Your task to perform on an android device: toggle improve location accuracy Image 0: 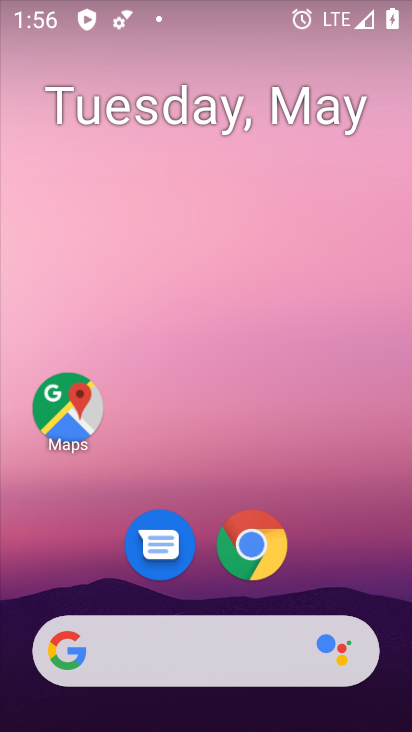
Step 0: drag from (313, 507) to (188, 1)
Your task to perform on an android device: toggle improve location accuracy Image 1: 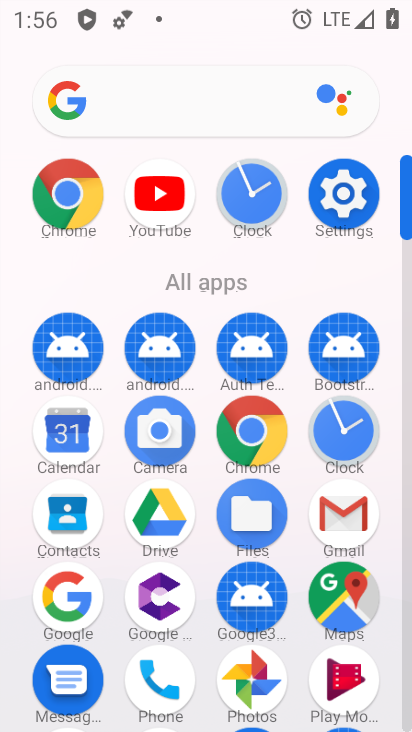
Step 1: drag from (8, 591) to (11, 308)
Your task to perform on an android device: toggle improve location accuracy Image 2: 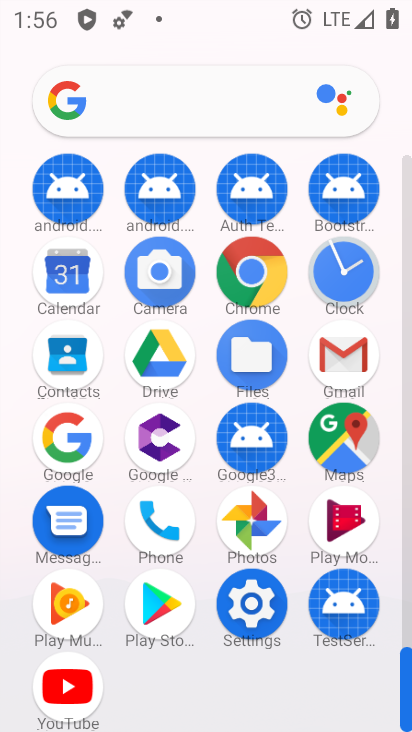
Step 2: click (252, 600)
Your task to perform on an android device: toggle improve location accuracy Image 3: 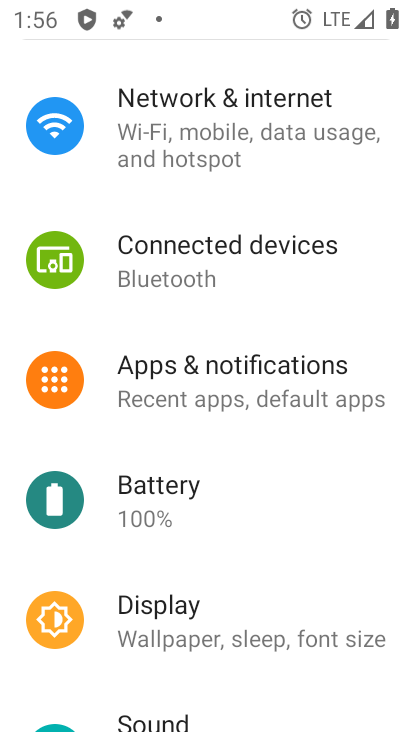
Step 3: drag from (237, 652) to (259, 193)
Your task to perform on an android device: toggle improve location accuracy Image 4: 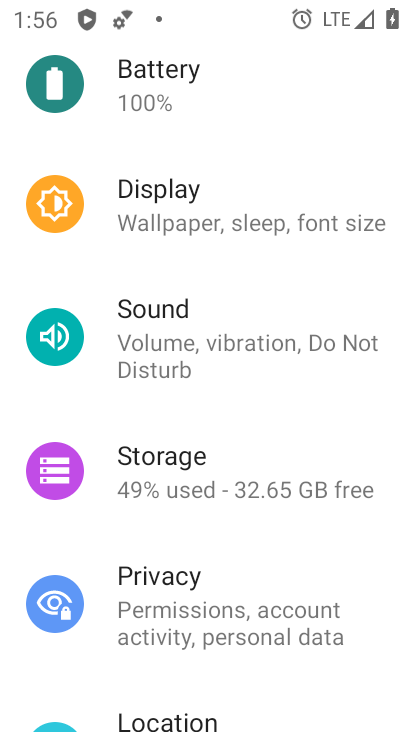
Step 4: click (184, 714)
Your task to perform on an android device: toggle improve location accuracy Image 5: 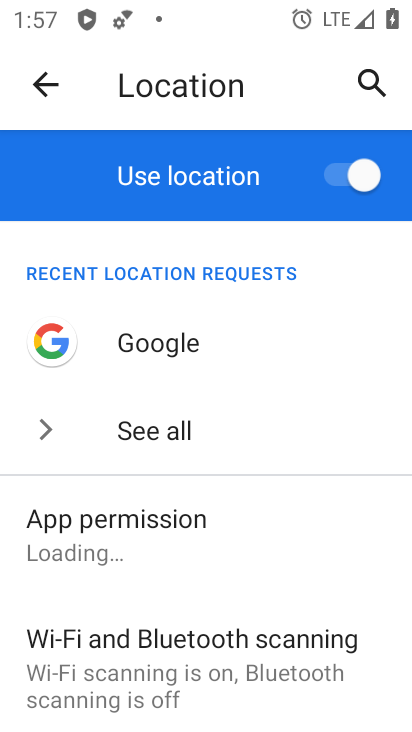
Step 5: drag from (284, 578) to (267, 201)
Your task to perform on an android device: toggle improve location accuracy Image 6: 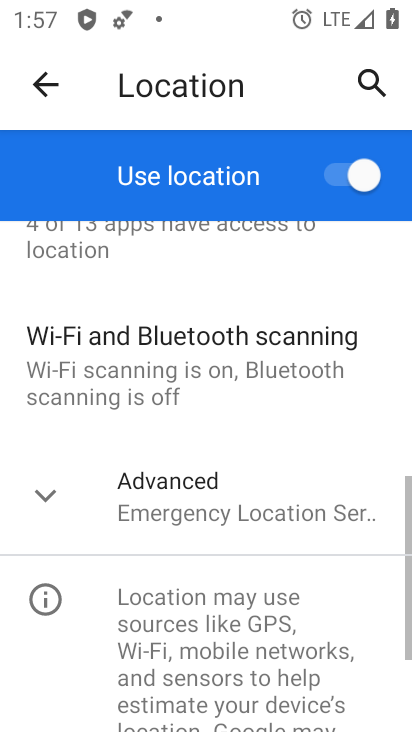
Step 6: click (65, 471)
Your task to perform on an android device: toggle improve location accuracy Image 7: 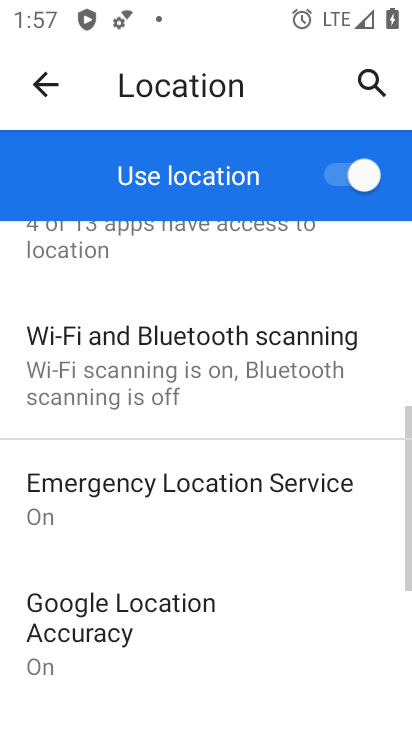
Step 7: drag from (313, 586) to (301, 280)
Your task to perform on an android device: toggle improve location accuracy Image 8: 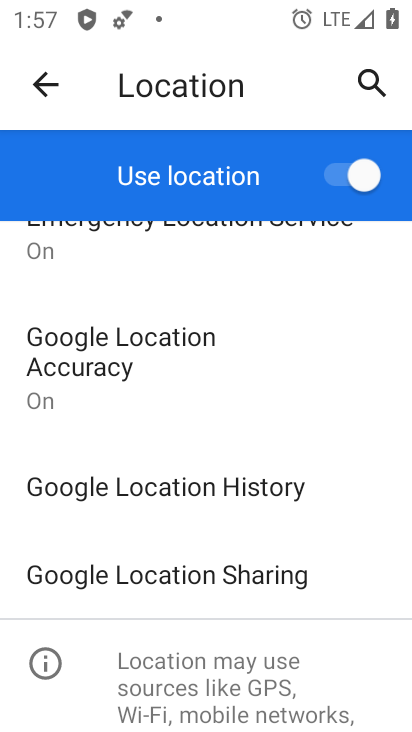
Step 8: drag from (313, 347) to (305, 609)
Your task to perform on an android device: toggle improve location accuracy Image 9: 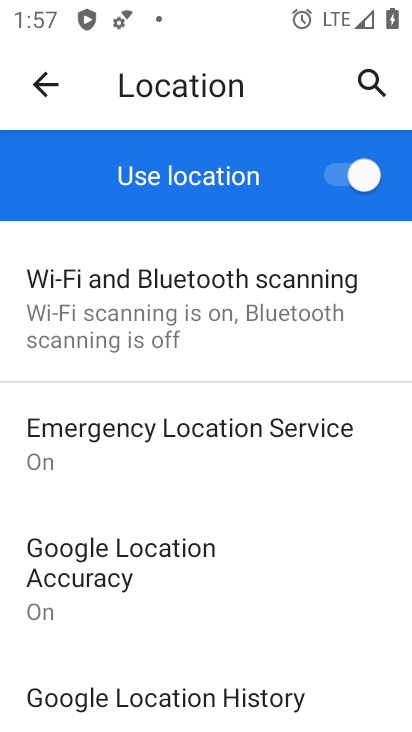
Step 9: drag from (288, 594) to (270, 404)
Your task to perform on an android device: toggle improve location accuracy Image 10: 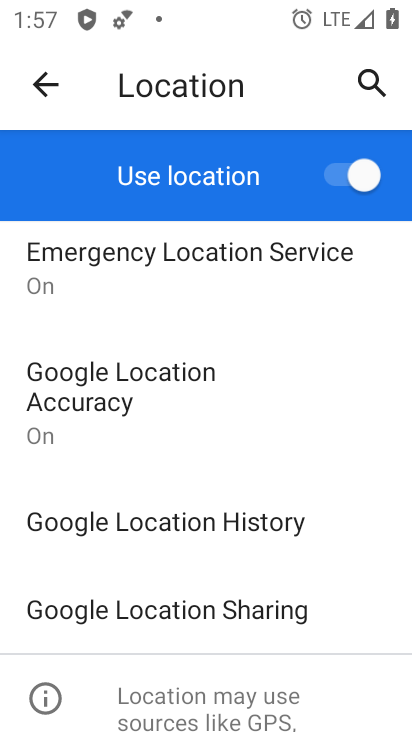
Step 10: click (160, 404)
Your task to perform on an android device: toggle improve location accuracy Image 11: 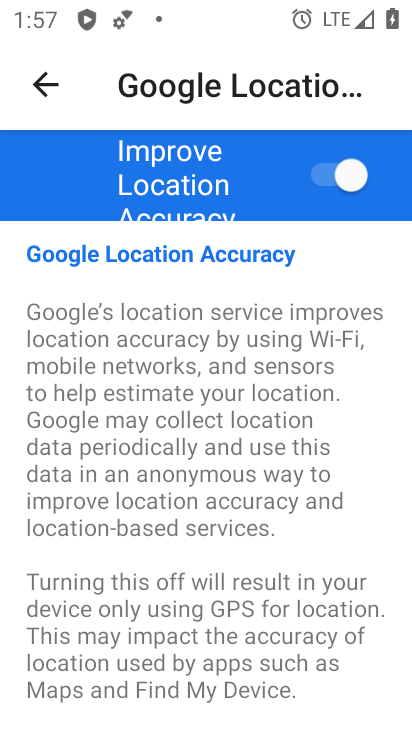
Step 11: click (331, 166)
Your task to perform on an android device: toggle improve location accuracy Image 12: 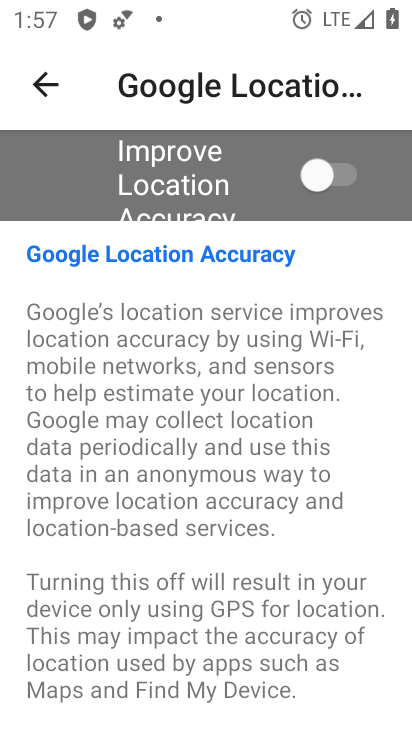
Step 12: task complete